Your task to perform on an android device: Open internet settings Image 0: 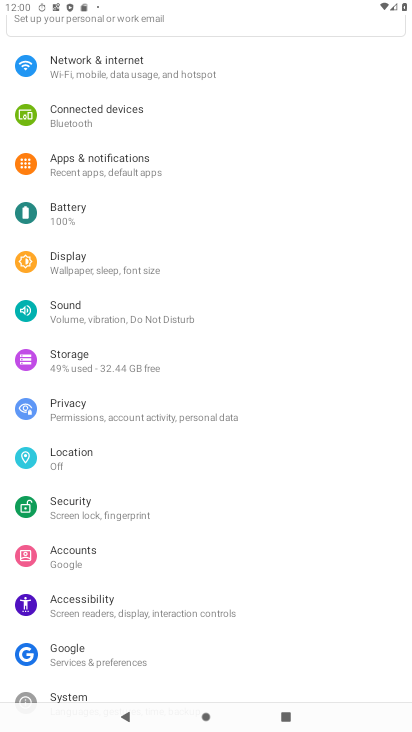
Step 0: press home button
Your task to perform on an android device: Open internet settings Image 1: 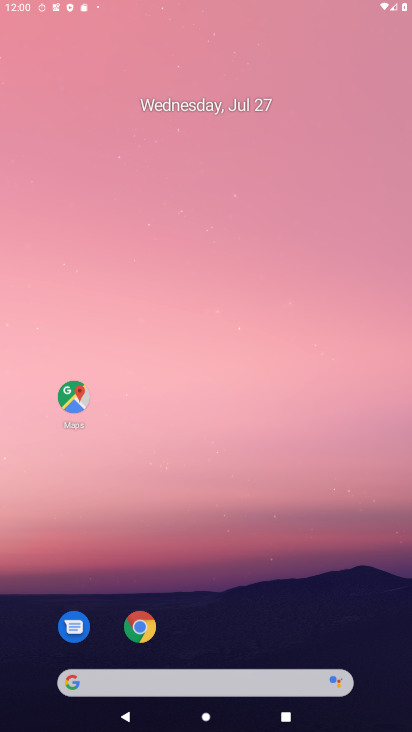
Step 1: drag from (362, 667) to (247, 86)
Your task to perform on an android device: Open internet settings Image 2: 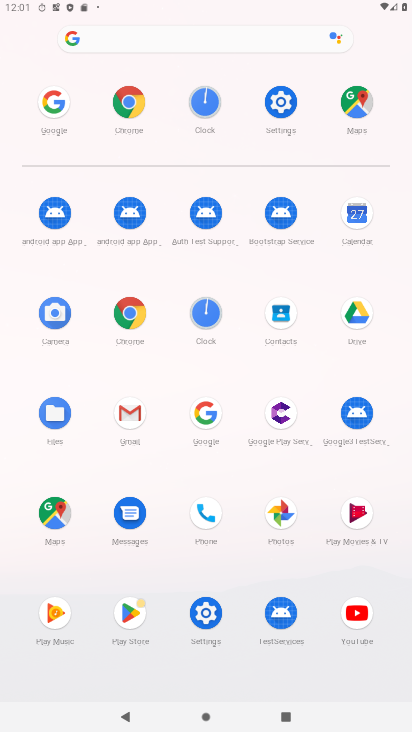
Step 2: click (283, 97)
Your task to perform on an android device: Open internet settings Image 3: 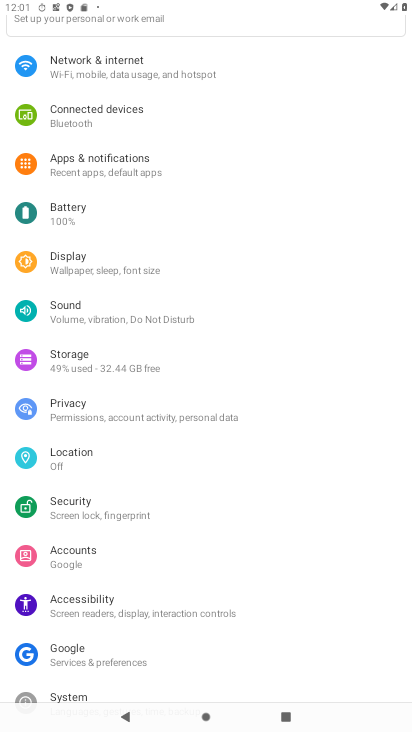
Step 3: click (126, 80)
Your task to perform on an android device: Open internet settings Image 4: 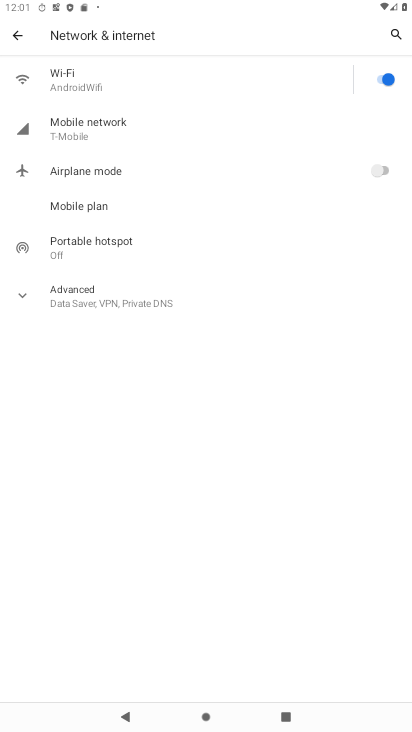
Step 4: task complete